Your task to perform on an android device: Open the Play Movies app and select the watchlist tab. Image 0: 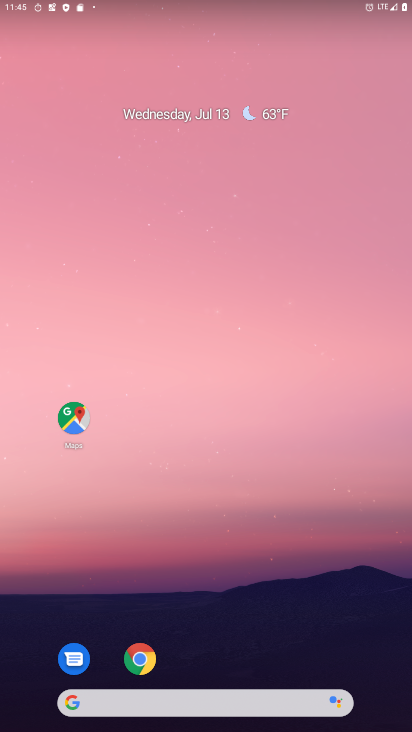
Step 0: drag from (271, 564) to (264, 174)
Your task to perform on an android device: Open the Play Movies app and select the watchlist tab. Image 1: 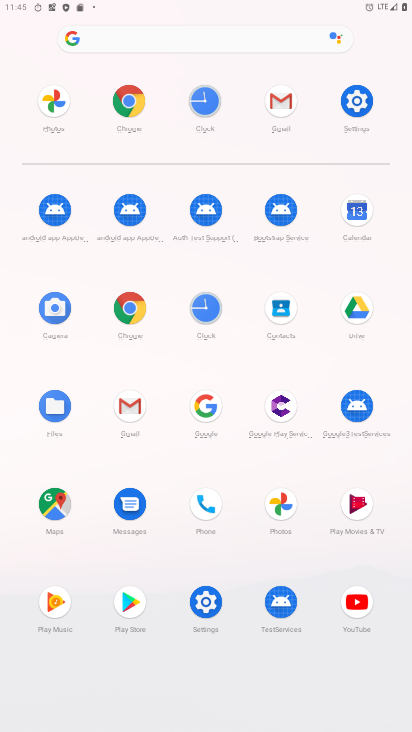
Step 1: click (363, 507)
Your task to perform on an android device: Open the Play Movies app and select the watchlist tab. Image 2: 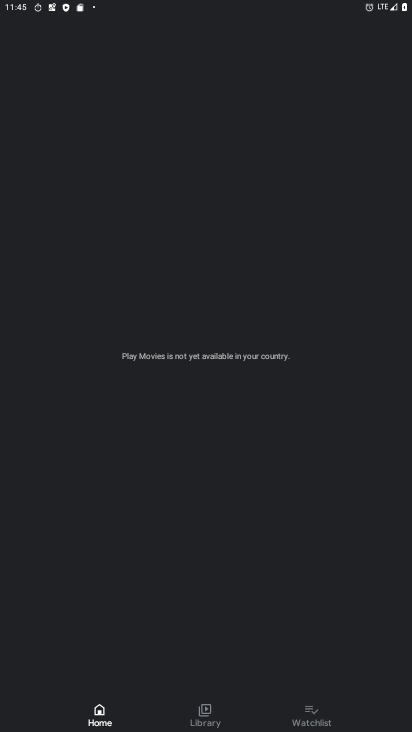
Step 2: click (308, 704)
Your task to perform on an android device: Open the Play Movies app and select the watchlist tab. Image 3: 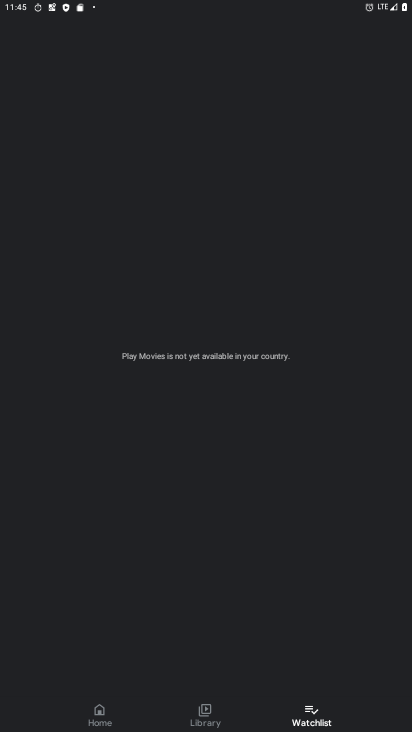
Step 3: task complete